Your task to perform on an android device: change your default location settings in chrome Image 0: 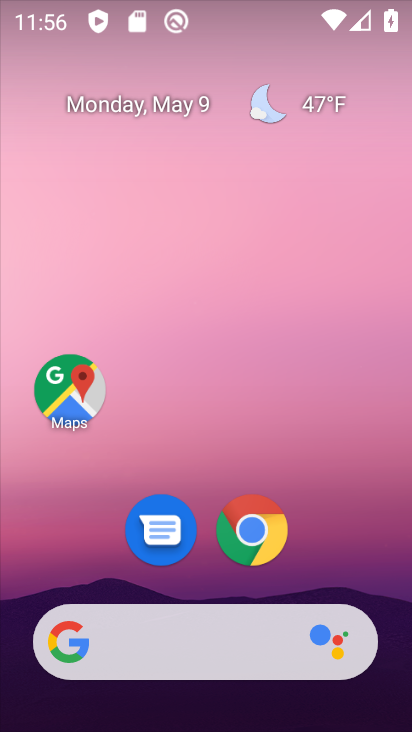
Step 0: drag from (319, 500) to (319, 129)
Your task to perform on an android device: change your default location settings in chrome Image 1: 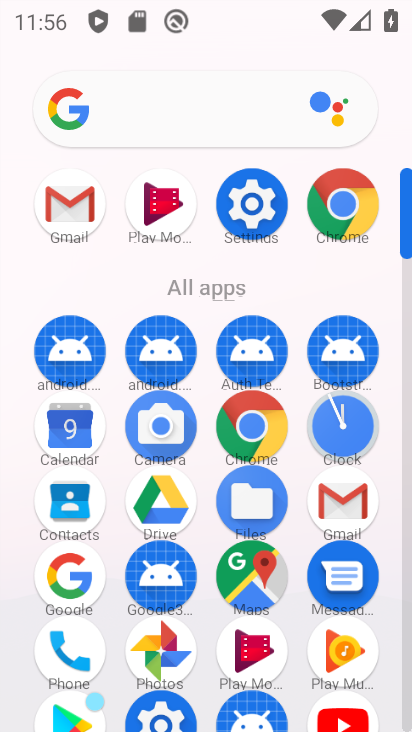
Step 1: click (227, 420)
Your task to perform on an android device: change your default location settings in chrome Image 2: 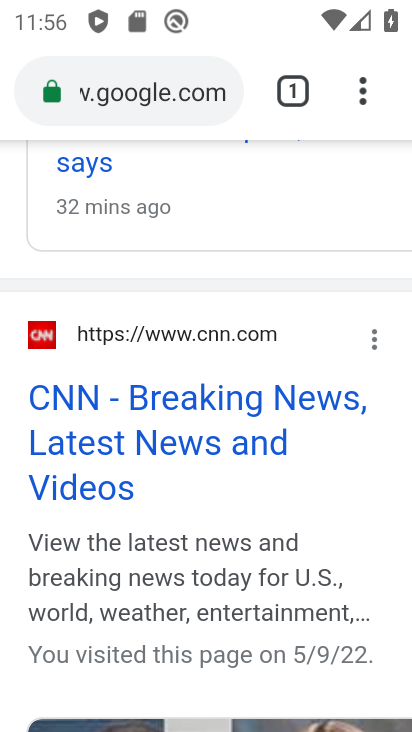
Step 2: drag from (366, 99) to (229, 579)
Your task to perform on an android device: change your default location settings in chrome Image 3: 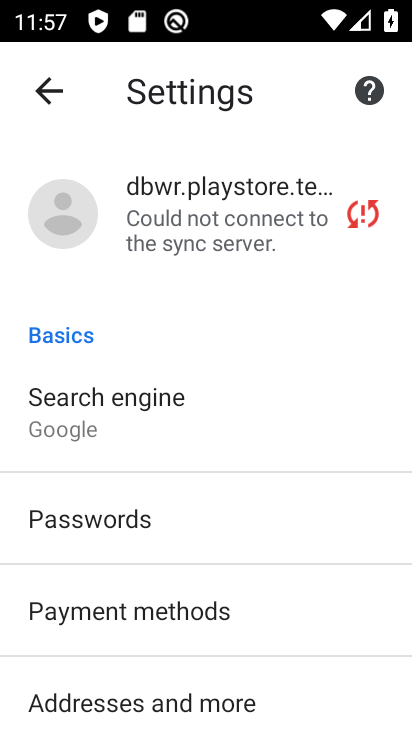
Step 3: drag from (288, 426) to (299, 318)
Your task to perform on an android device: change your default location settings in chrome Image 4: 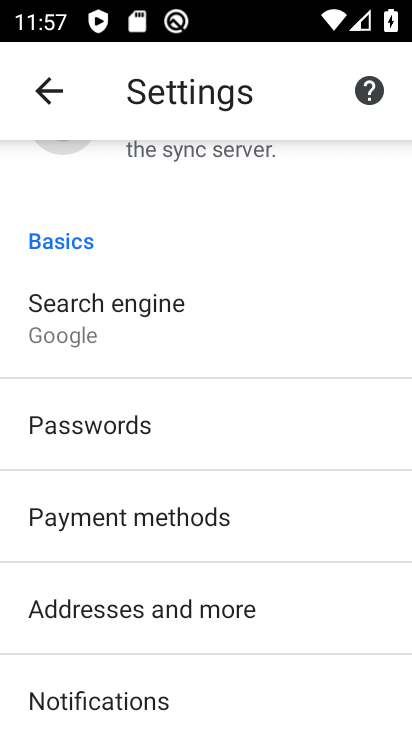
Step 4: drag from (218, 665) to (304, 345)
Your task to perform on an android device: change your default location settings in chrome Image 5: 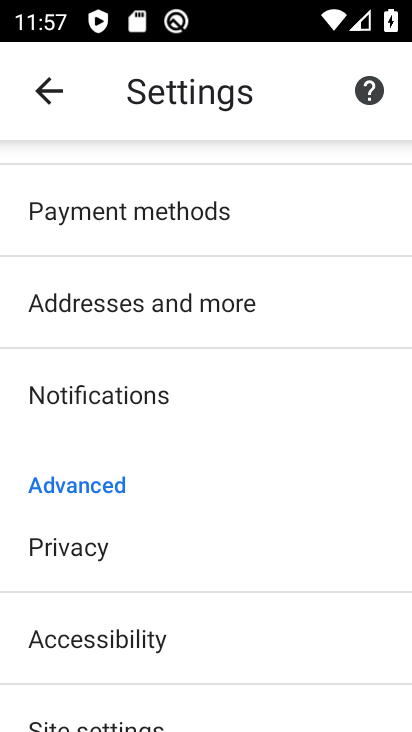
Step 5: drag from (190, 620) to (268, 287)
Your task to perform on an android device: change your default location settings in chrome Image 6: 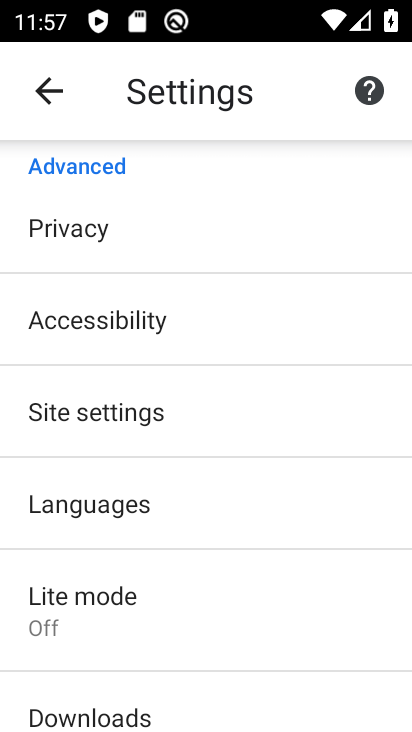
Step 6: click (133, 420)
Your task to perform on an android device: change your default location settings in chrome Image 7: 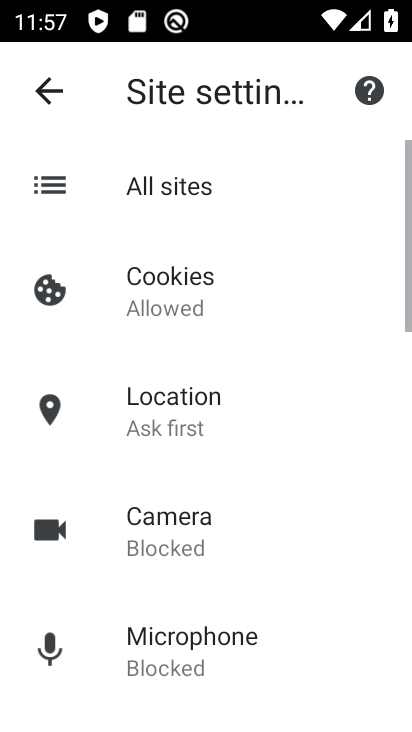
Step 7: click (197, 376)
Your task to perform on an android device: change your default location settings in chrome Image 8: 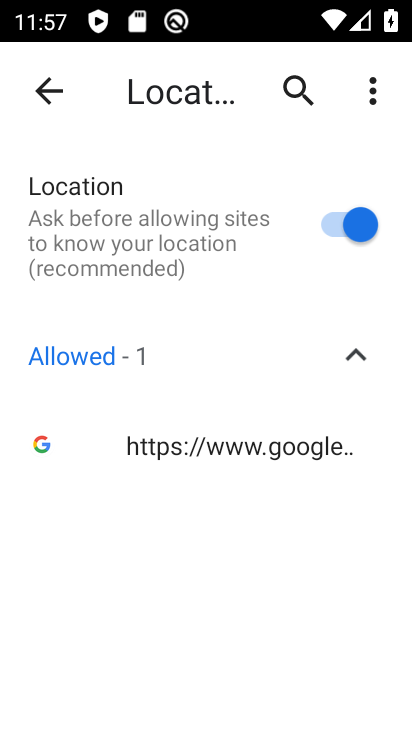
Step 8: click (310, 215)
Your task to perform on an android device: change your default location settings in chrome Image 9: 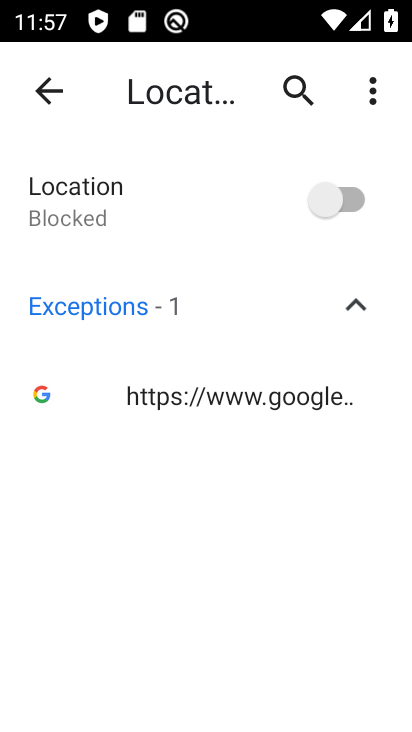
Step 9: task complete